Your task to perform on an android device: empty trash in the gmail app Image 0: 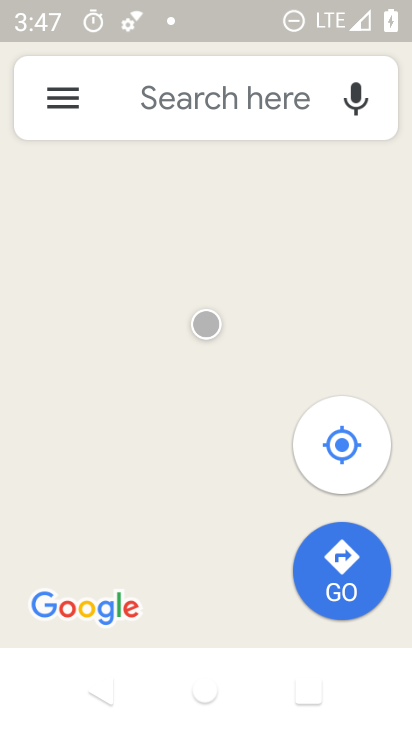
Step 0: press back button
Your task to perform on an android device: empty trash in the gmail app Image 1: 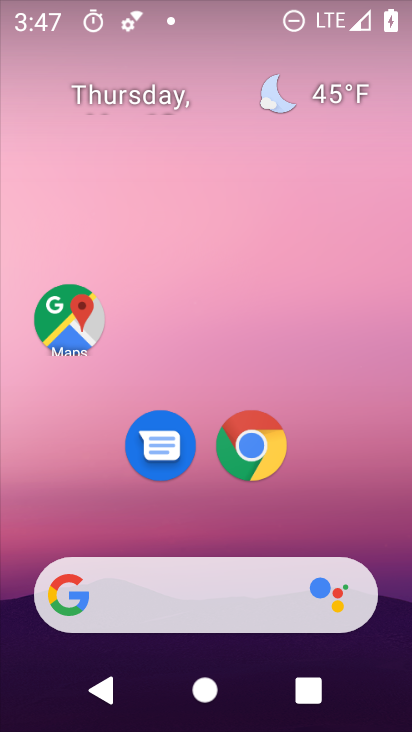
Step 1: drag from (339, 494) to (303, 137)
Your task to perform on an android device: empty trash in the gmail app Image 2: 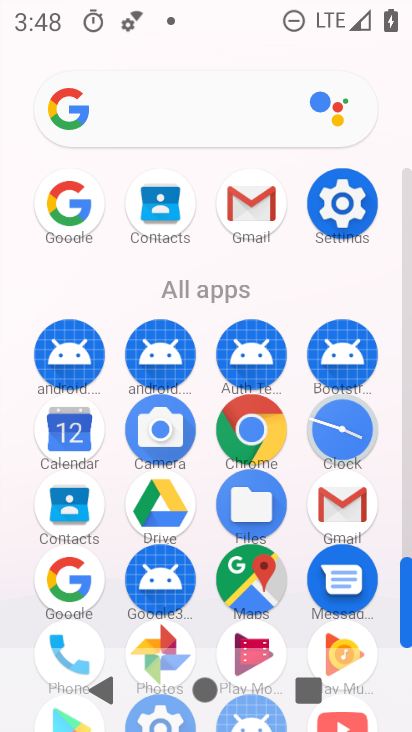
Step 2: click (249, 204)
Your task to perform on an android device: empty trash in the gmail app Image 3: 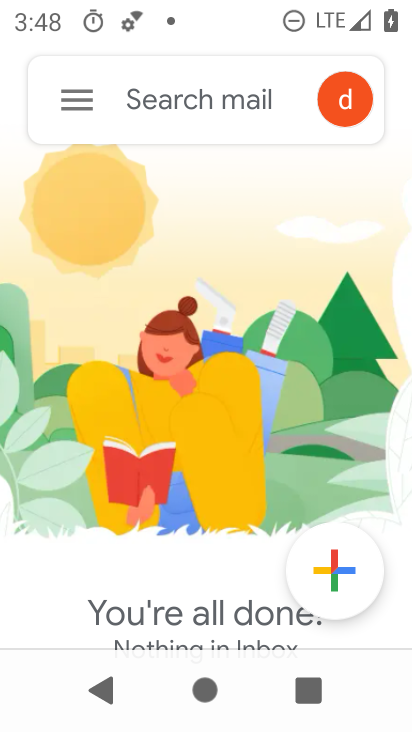
Step 3: click (76, 98)
Your task to perform on an android device: empty trash in the gmail app Image 4: 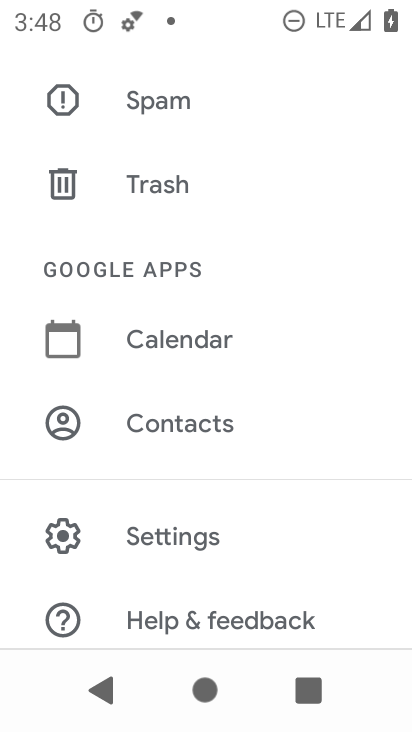
Step 4: click (160, 192)
Your task to perform on an android device: empty trash in the gmail app Image 5: 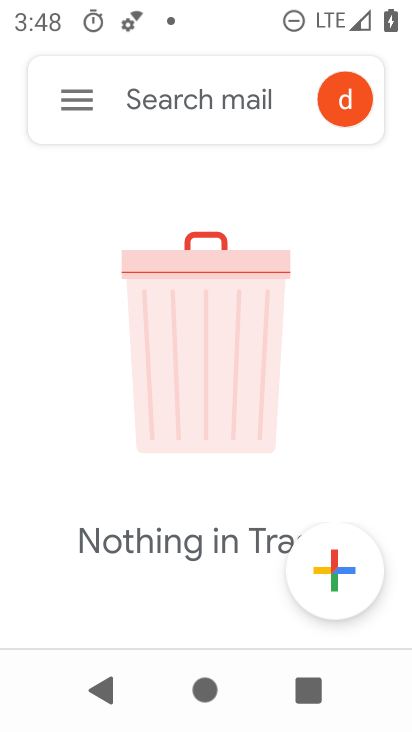
Step 5: task complete